Your task to perform on an android device: Open Google Chrome and click the shortcut for Amazon.com Image 0: 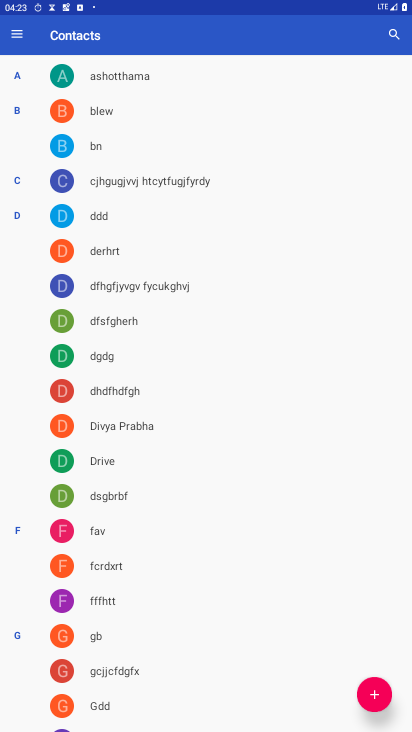
Step 0: press home button
Your task to perform on an android device: Open Google Chrome and click the shortcut for Amazon.com Image 1: 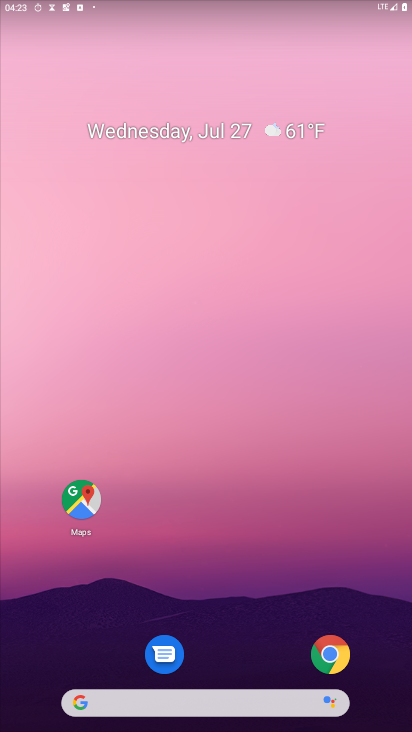
Step 1: drag from (161, 716) to (263, 48)
Your task to perform on an android device: Open Google Chrome and click the shortcut for Amazon.com Image 2: 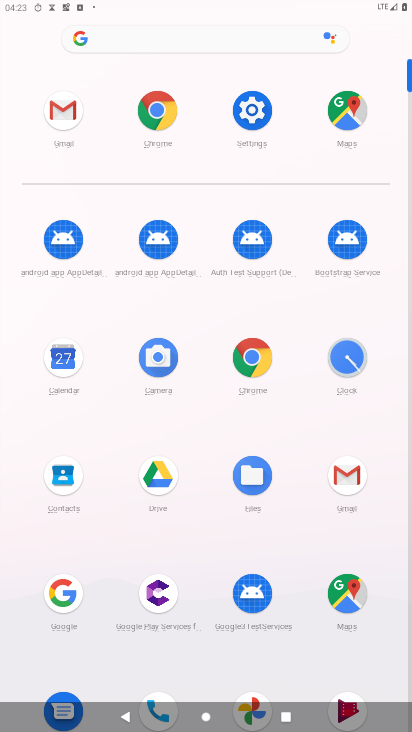
Step 2: click (251, 357)
Your task to perform on an android device: Open Google Chrome and click the shortcut for Amazon.com Image 3: 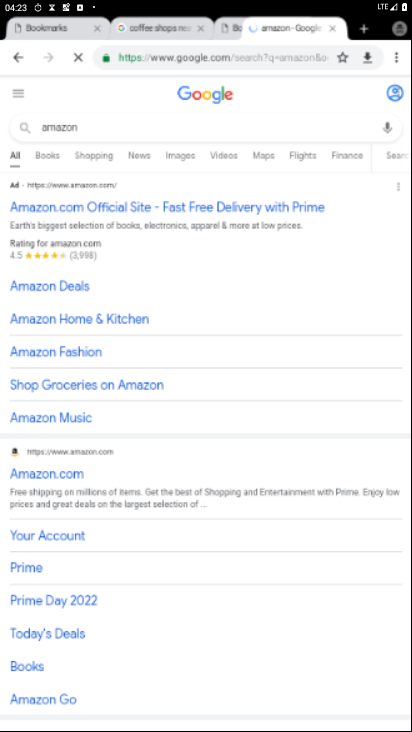
Step 3: click (395, 56)
Your task to perform on an android device: Open Google Chrome and click the shortcut for Amazon.com Image 4: 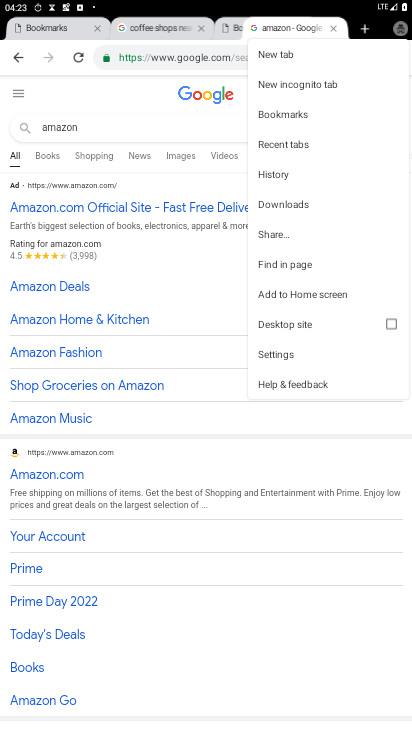
Step 4: click (290, 292)
Your task to perform on an android device: Open Google Chrome and click the shortcut for Amazon.com Image 5: 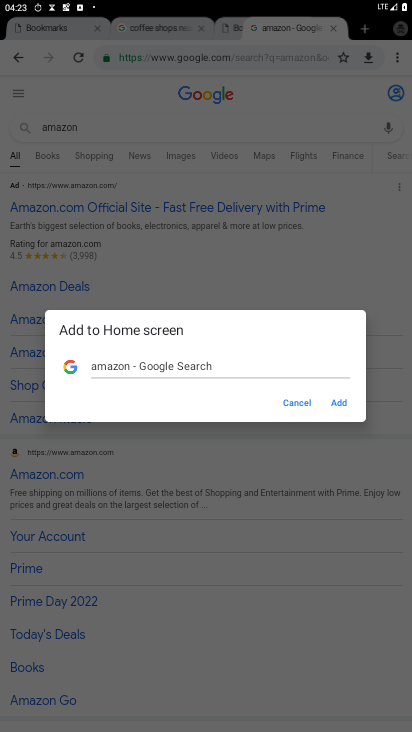
Step 5: click (334, 397)
Your task to perform on an android device: Open Google Chrome and click the shortcut for Amazon.com Image 6: 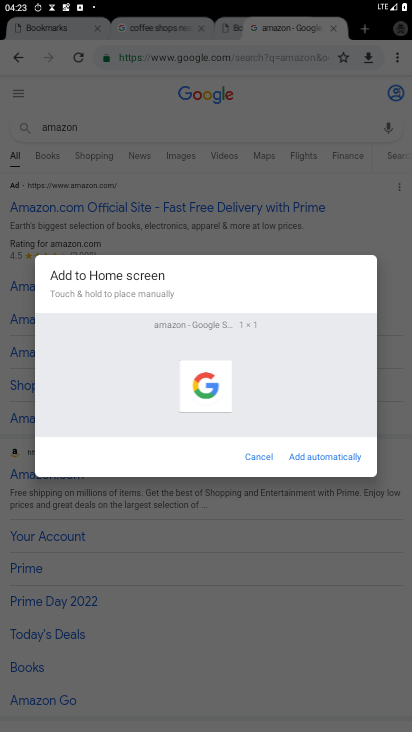
Step 6: click (311, 461)
Your task to perform on an android device: Open Google Chrome and click the shortcut for Amazon.com Image 7: 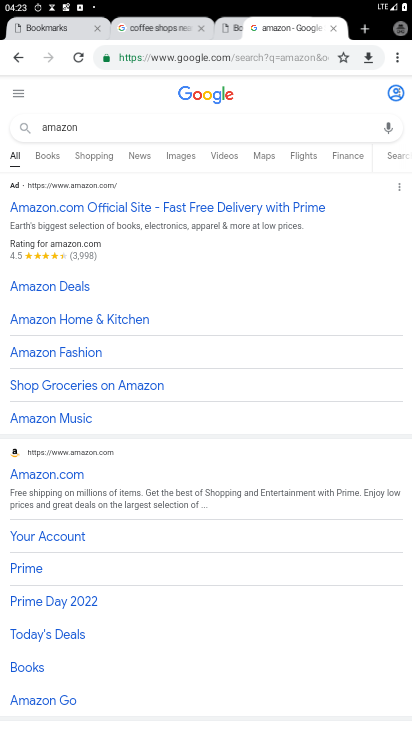
Step 7: task complete